Your task to perform on an android device: change keyboard looks Image 0: 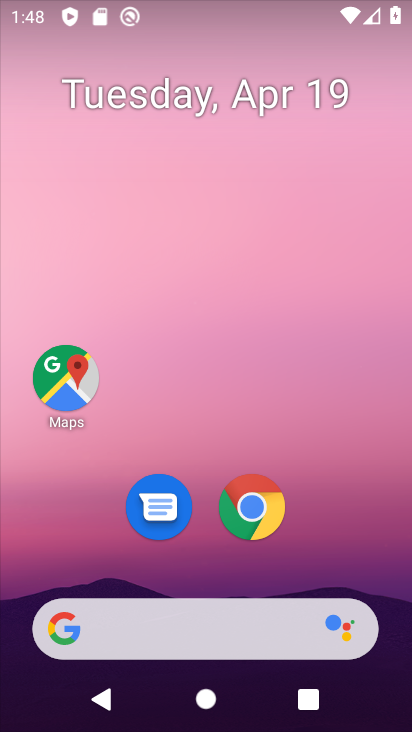
Step 0: drag from (152, 596) to (225, 97)
Your task to perform on an android device: change keyboard looks Image 1: 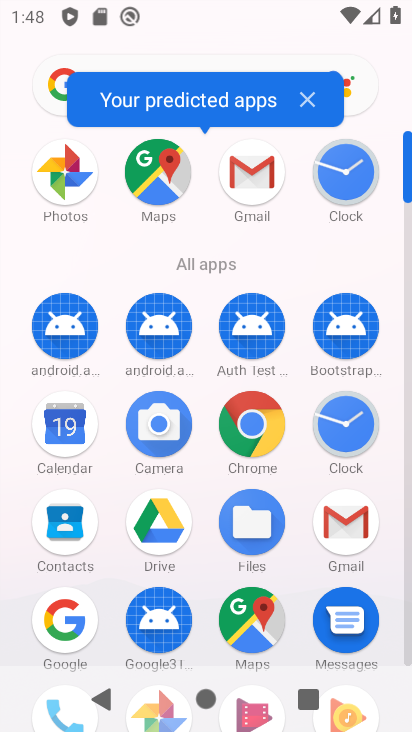
Step 1: drag from (215, 597) to (287, 289)
Your task to perform on an android device: change keyboard looks Image 2: 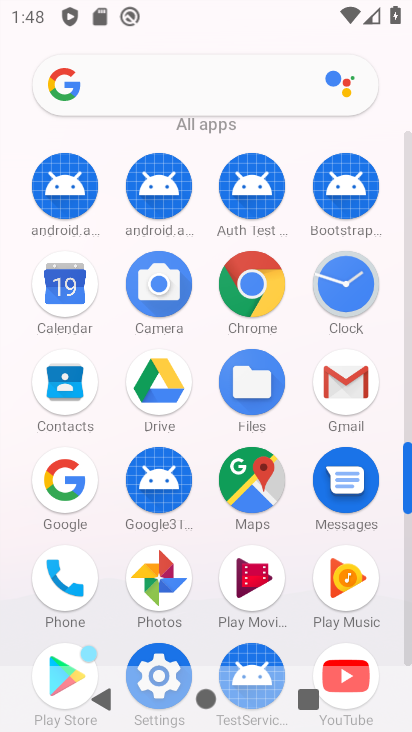
Step 2: click (158, 679)
Your task to perform on an android device: change keyboard looks Image 3: 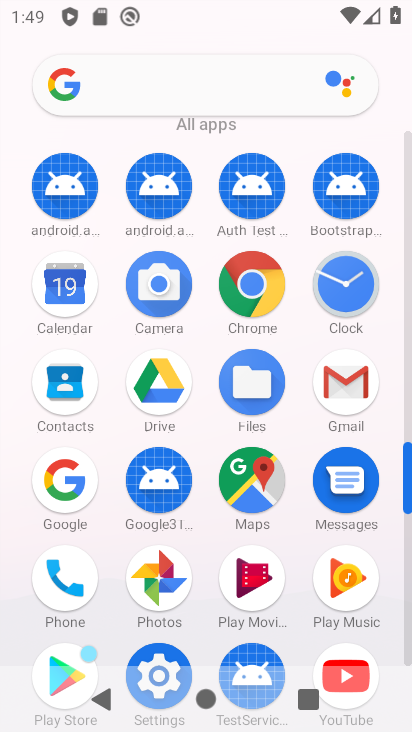
Step 3: click (169, 652)
Your task to perform on an android device: change keyboard looks Image 4: 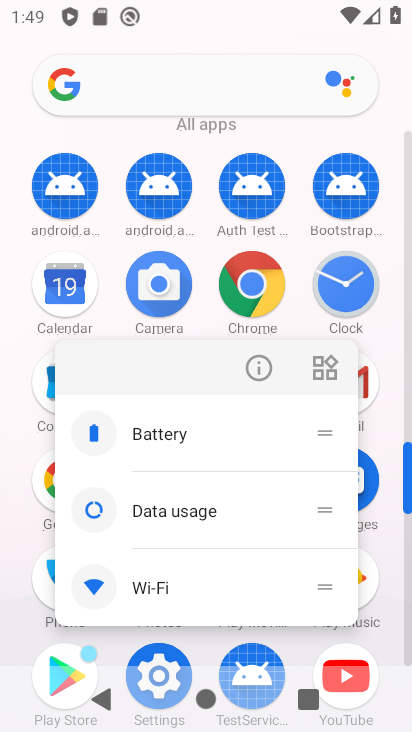
Step 4: click (167, 652)
Your task to perform on an android device: change keyboard looks Image 5: 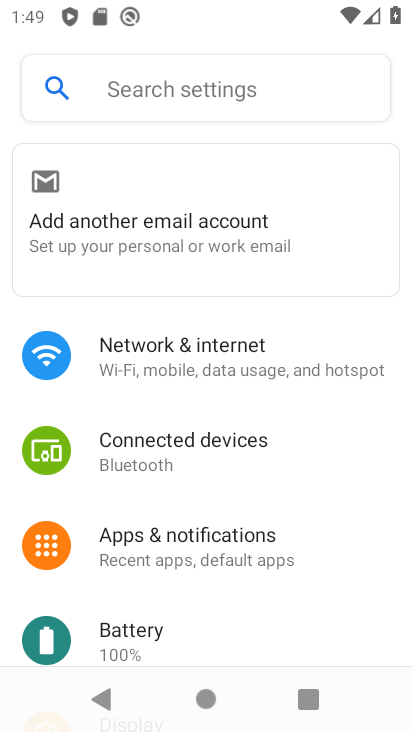
Step 5: drag from (209, 559) to (365, 120)
Your task to perform on an android device: change keyboard looks Image 6: 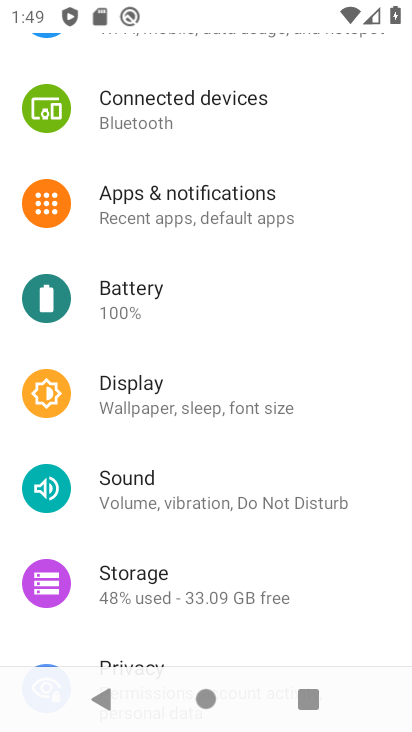
Step 6: drag from (232, 522) to (391, 110)
Your task to perform on an android device: change keyboard looks Image 7: 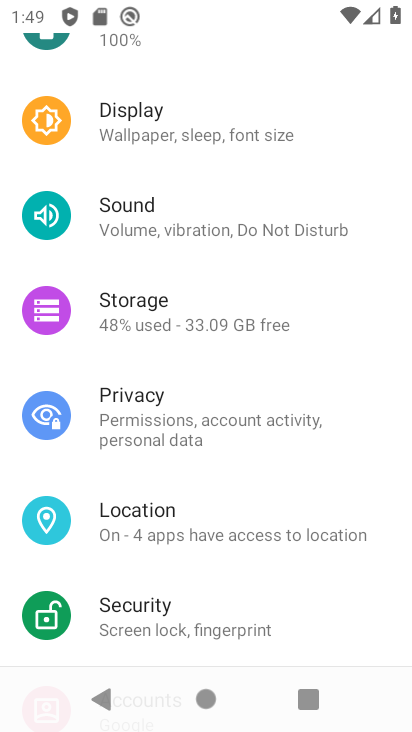
Step 7: drag from (173, 603) to (350, 143)
Your task to perform on an android device: change keyboard looks Image 8: 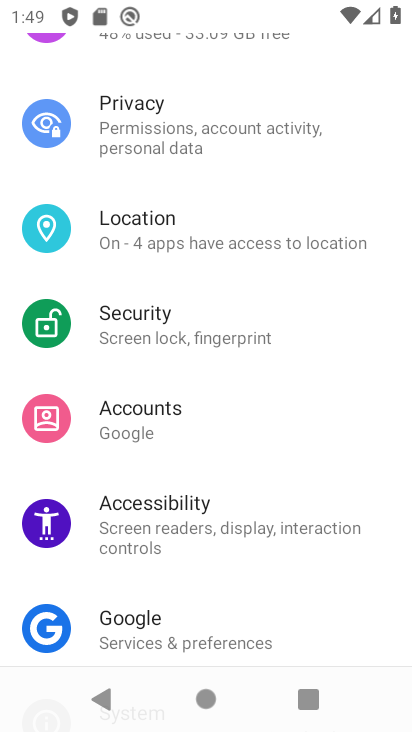
Step 8: drag from (185, 589) to (301, 289)
Your task to perform on an android device: change keyboard looks Image 9: 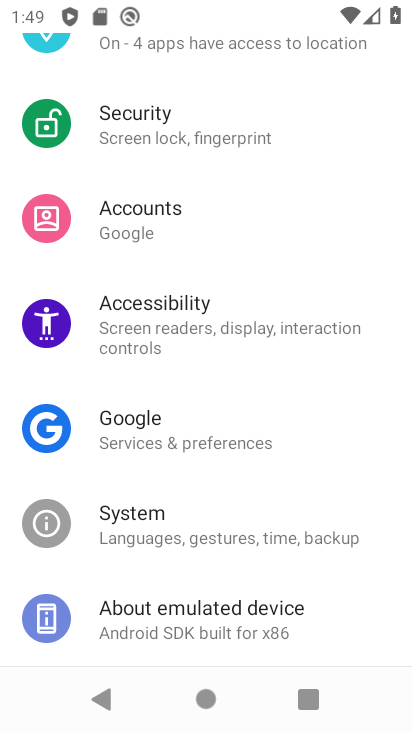
Step 9: click (234, 532)
Your task to perform on an android device: change keyboard looks Image 10: 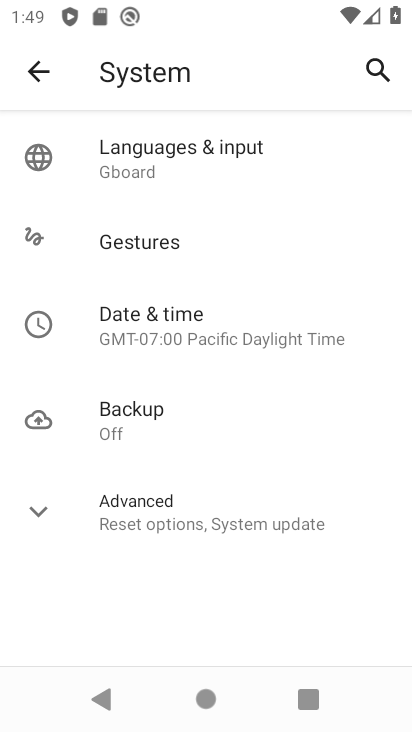
Step 10: click (256, 142)
Your task to perform on an android device: change keyboard looks Image 11: 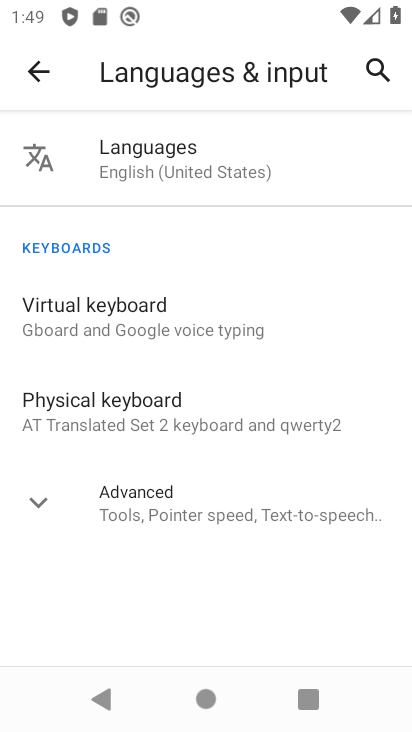
Step 11: click (154, 310)
Your task to perform on an android device: change keyboard looks Image 12: 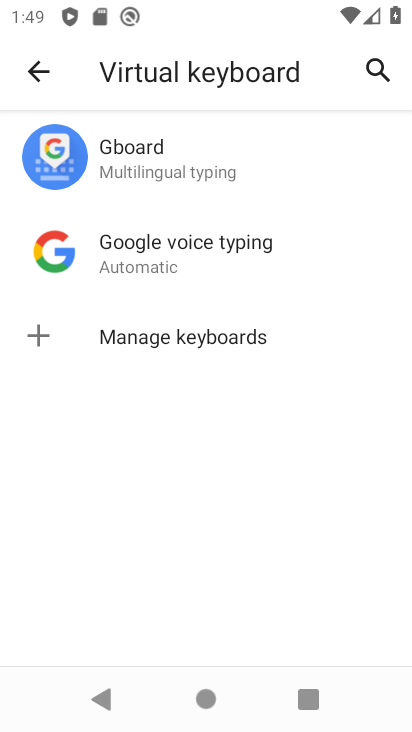
Step 12: click (228, 176)
Your task to perform on an android device: change keyboard looks Image 13: 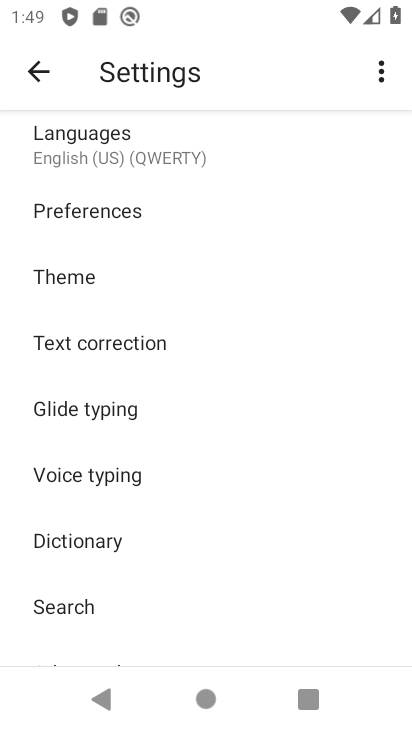
Step 13: click (180, 158)
Your task to perform on an android device: change keyboard looks Image 14: 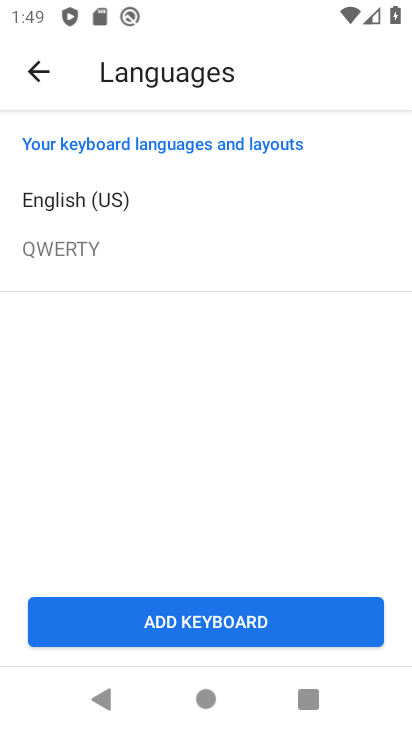
Step 14: press back button
Your task to perform on an android device: change keyboard looks Image 15: 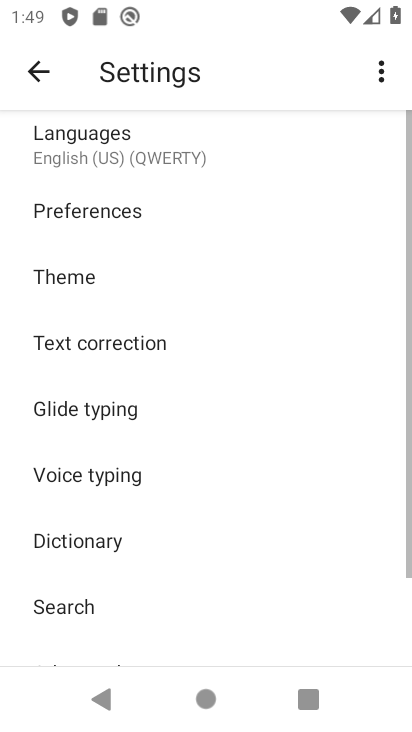
Step 15: click (135, 284)
Your task to perform on an android device: change keyboard looks Image 16: 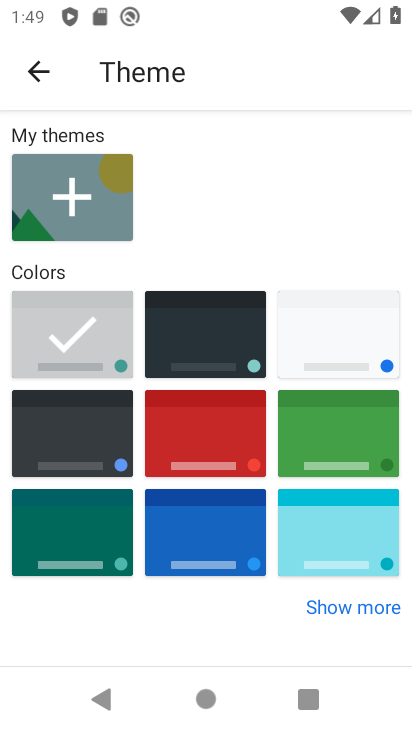
Step 16: click (232, 309)
Your task to perform on an android device: change keyboard looks Image 17: 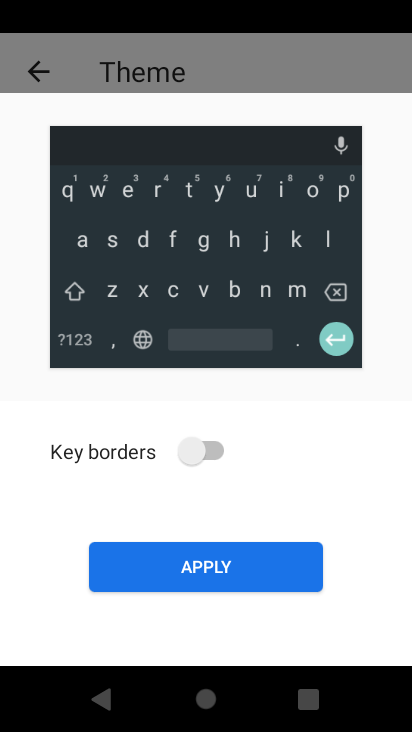
Step 17: click (271, 567)
Your task to perform on an android device: change keyboard looks Image 18: 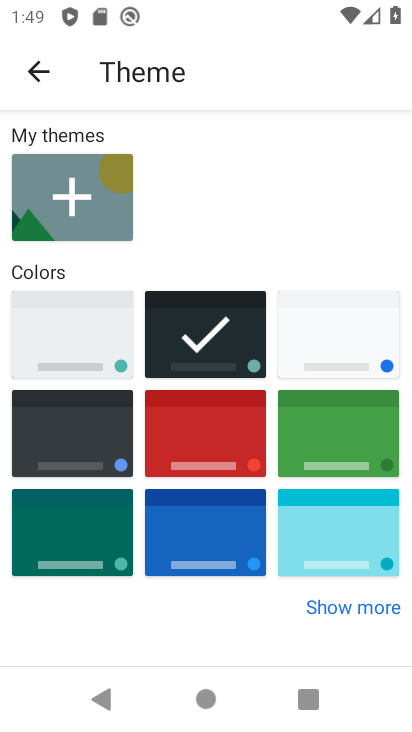
Step 18: press back button
Your task to perform on an android device: change keyboard looks Image 19: 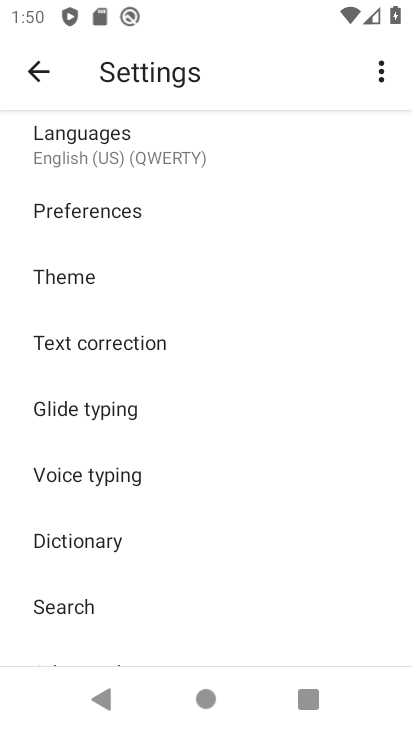
Step 19: click (161, 356)
Your task to perform on an android device: change keyboard looks Image 20: 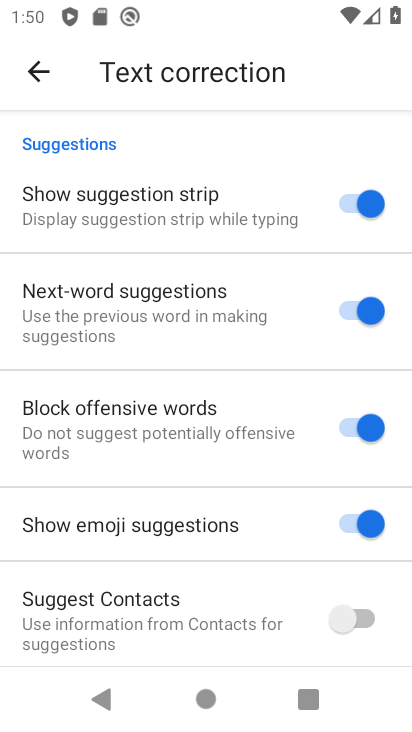
Step 20: click (385, 612)
Your task to perform on an android device: change keyboard looks Image 21: 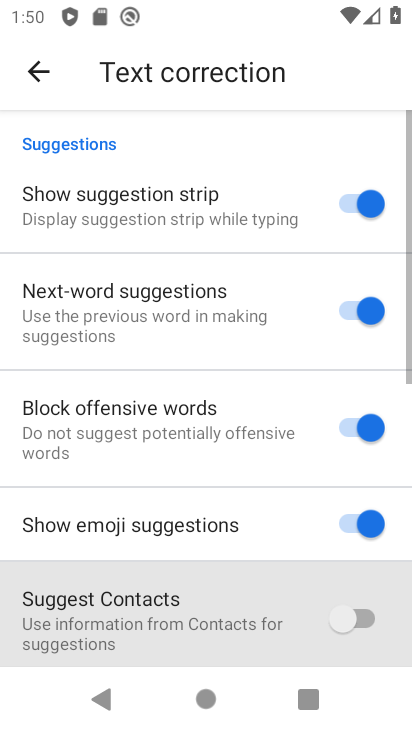
Step 21: click (341, 516)
Your task to perform on an android device: change keyboard looks Image 22: 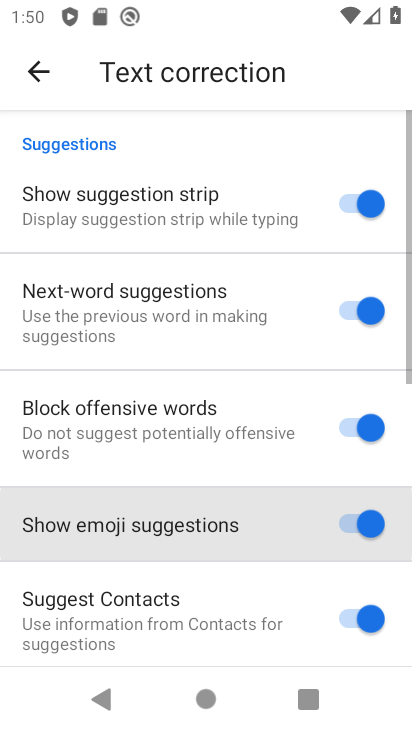
Step 22: click (342, 429)
Your task to perform on an android device: change keyboard looks Image 23: 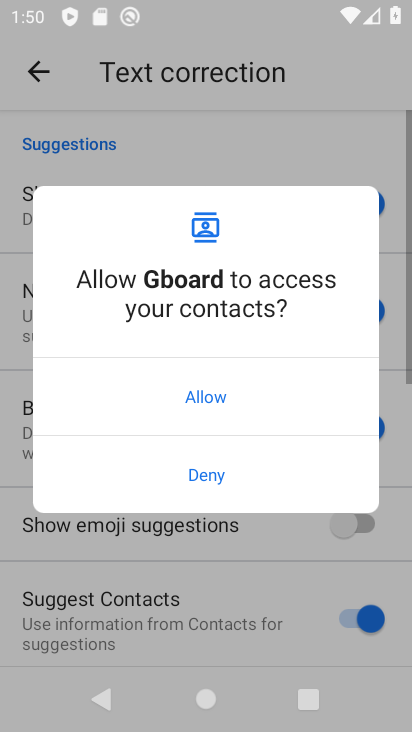
Step 23: click (352, 315)
Your task to perform on an android device: change keyboard looks Image 24: 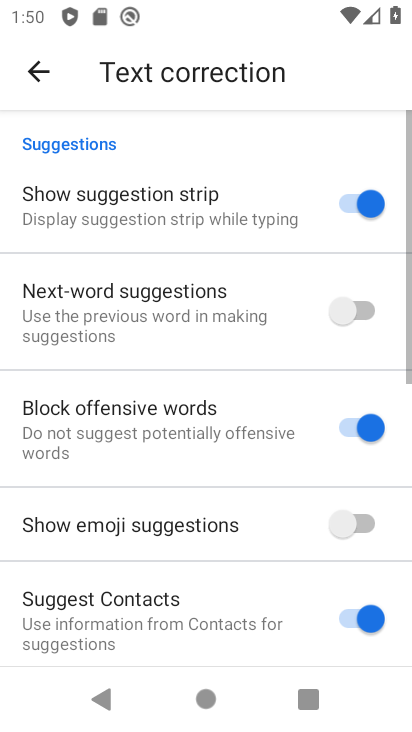
Step 24: click (352, 185)
Your task to perform on an android device: change keyboard looks Image 25: 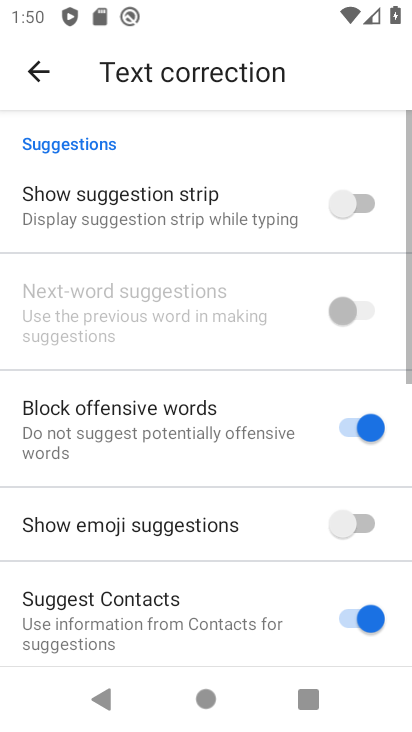
Step 25: click (344, 421)
Your task to perform on an android device: change keyboard looks Image 26: 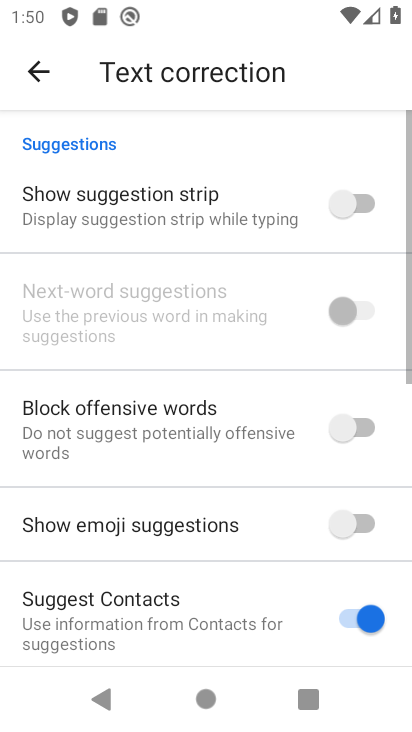
Step 26: task complete